Your task to perform on an android device: Open my contact list Image 0: 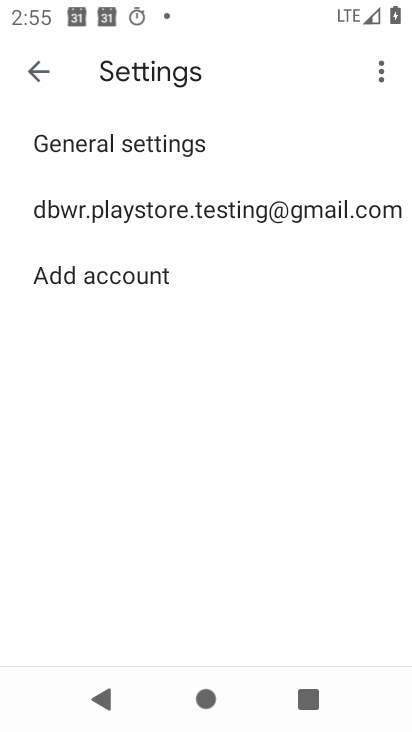
Step 0: press home button
Your task to perform on an android device: Open my contact list Image 1: 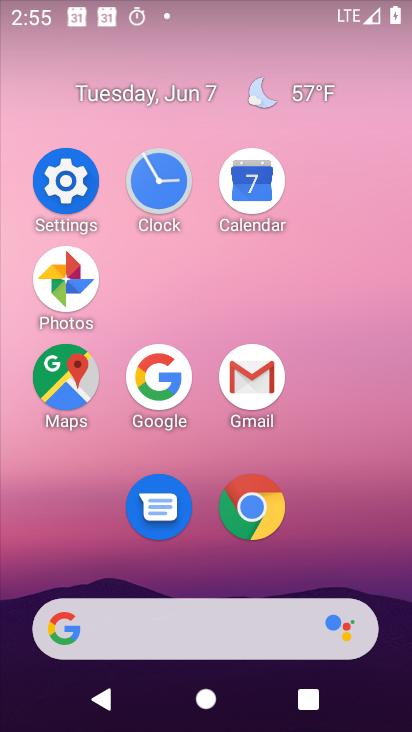
Step 1: drag from (312, 402) to (285, 89)
Your task to perform on an android device: Open my contact list Image 2: 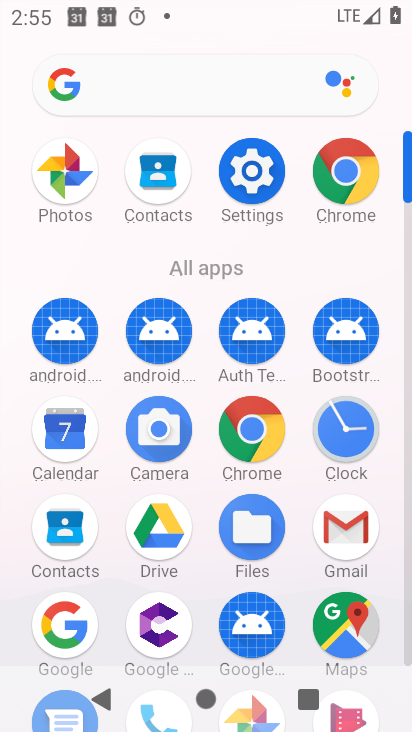
Step 2: click (75, 534)
Your task to perform on an android device: Open my contact list Image 3: 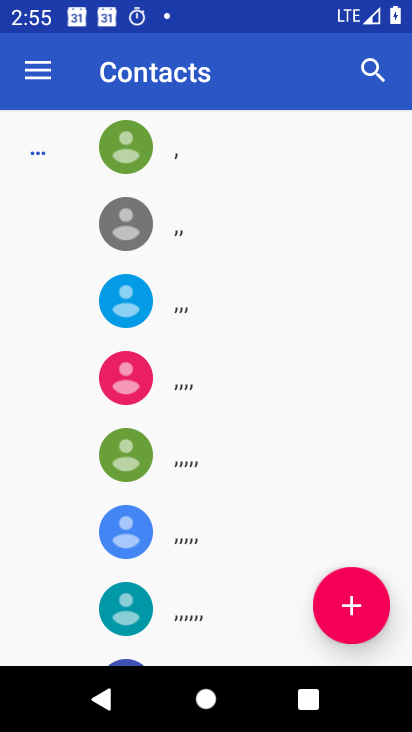
Step 3: task complete